Your task to perform on an android device: refresh tabs in the chrome app Image 0: 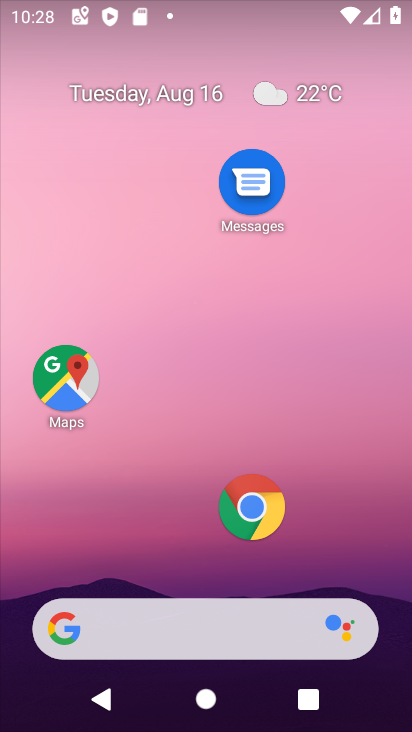
Step 0: click (266, 506)
Your task to perform on an android device: refresh tabs in the chrome app Image 1: 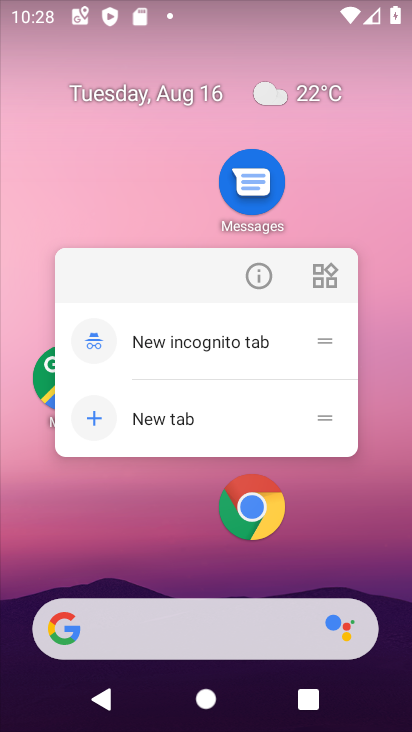
Step 1: click (257, 501)
Your task to perform on an android device: refresh tabs in the chrome app Image 2: 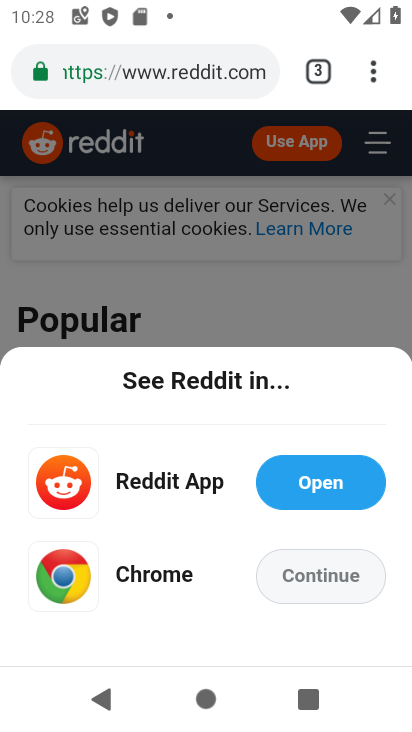
Step 2: click (378, 68)
Your task to perform on an android device: refresh tabs in the chrome app Image 3: 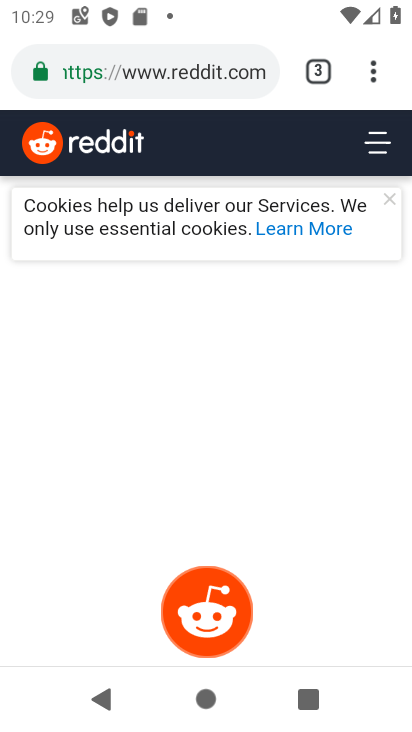
Step 3: task complete